Your task to perform on an android device: add a contact in the contacts app Image 0: 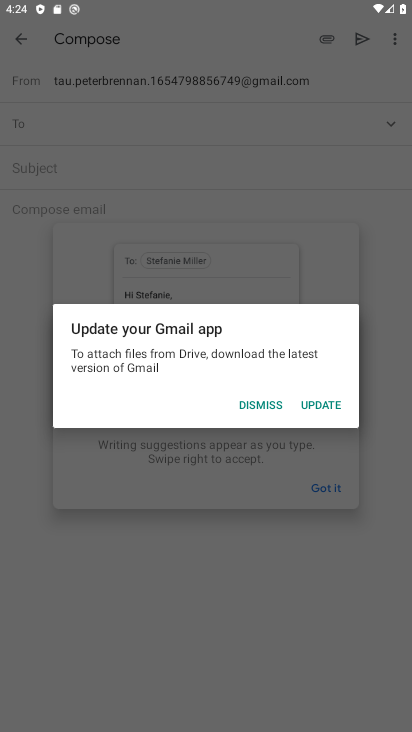
Step 0: click (316, 405)
Your task to perform on an android device: add a contact in the contacts app Image 1: 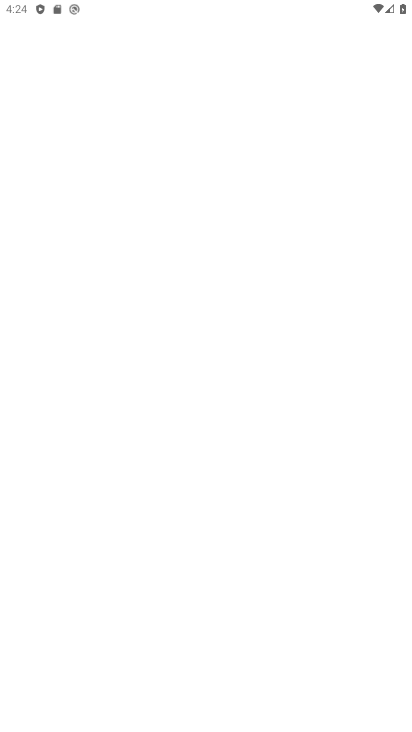
Step 1: press home button
Your task to perform on an android device: add a contact in the contacts app Image 2: 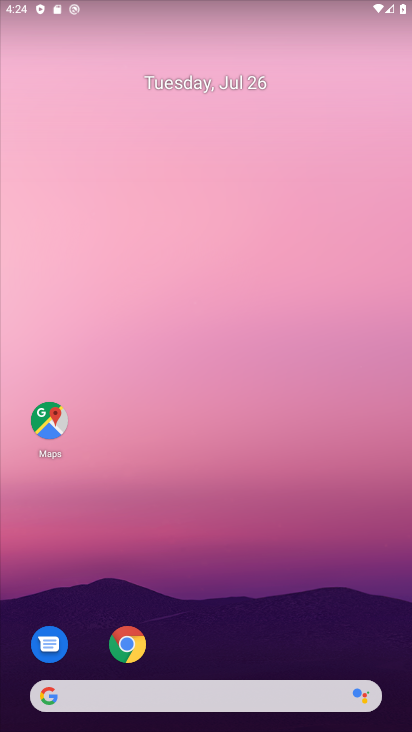
Step 2: drag from (292, 627) to (294, 78)
Your task to perform on an android device: add a contact in the contacts app Image 3: 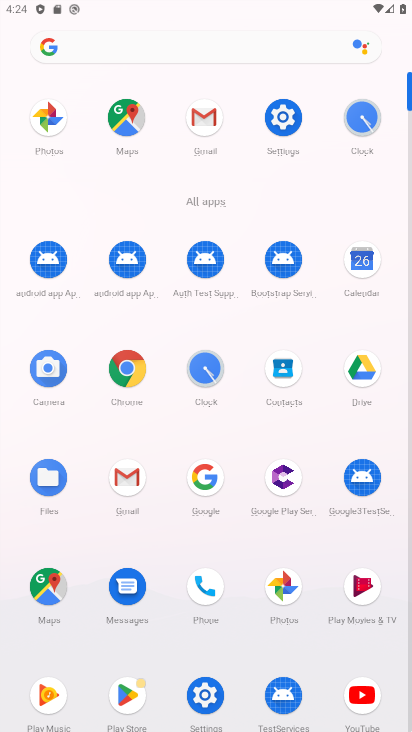
Step 3: click (298, 367)
Your task to perform on an android device: add a contact in the contacts app Image 4: 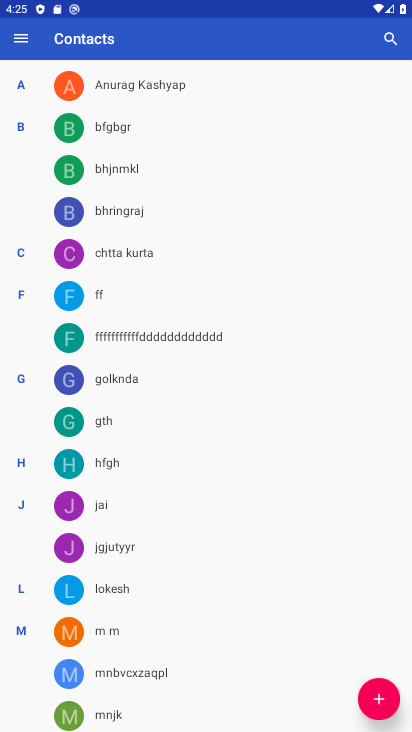
Step 4: drag from (180, 644) to (197, 261)
Your task to perform on an android device: add a contact in the contacts app Image 5: 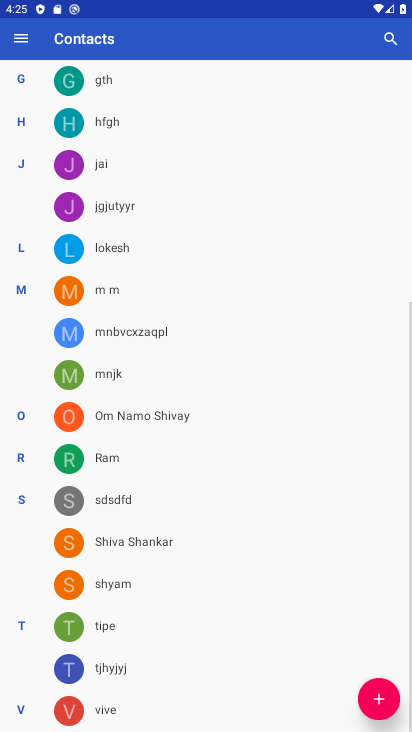
Step 5: click (383, 680)
Your task to perform on an android device: add a contact in the contacts app Image 6: 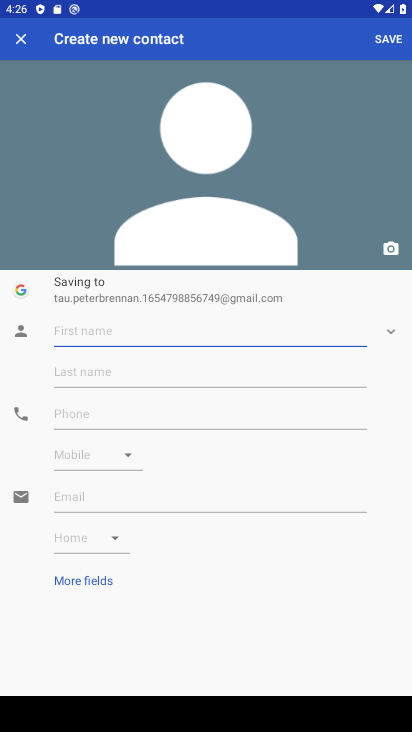
Step 6: type "bbbjj"
Your task to perform on an android device: add a contact in the contacts app Image 7: 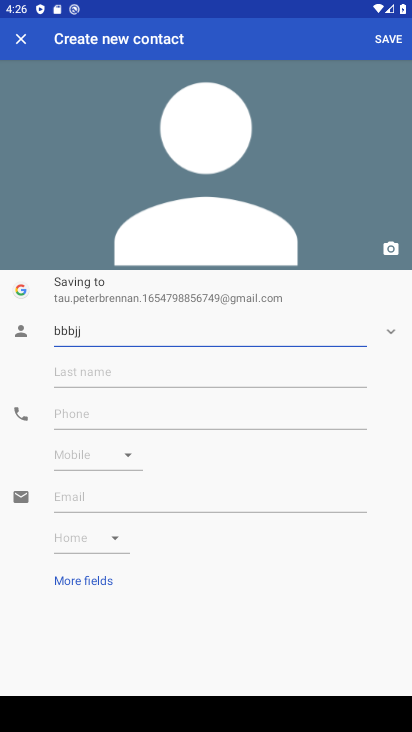
Step 7: click (75, 421)
Your task to perform on an android device: add a contact in the contacts app Image 8: 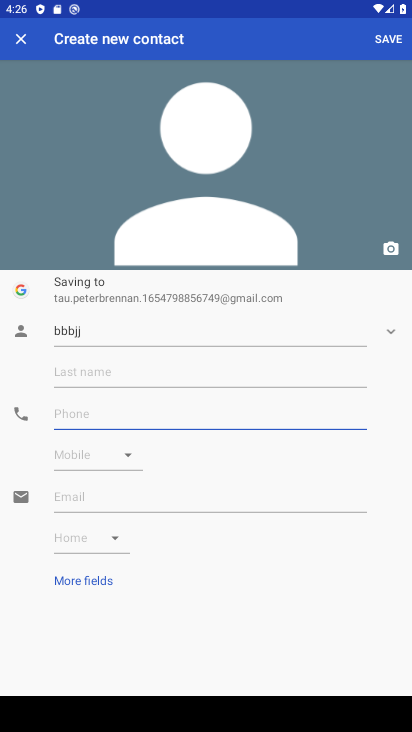
Step 8: type "7654"
Your task to perform on an android device: add a contact in the contacts app Image 9: 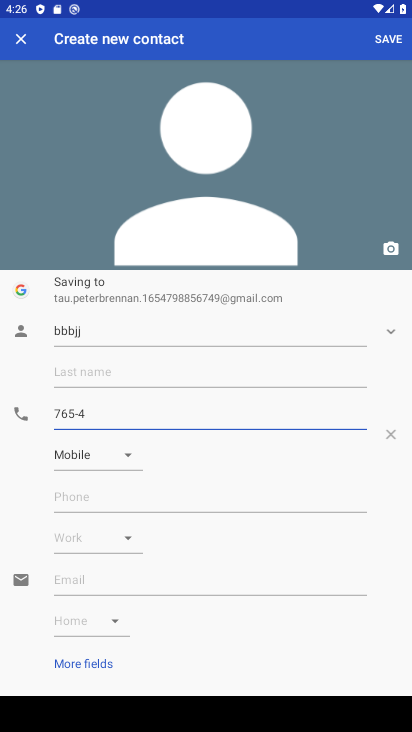
Step 9: click (389, 39)
Your task to perform on an android device: add a contact in the contacts app Image 10: 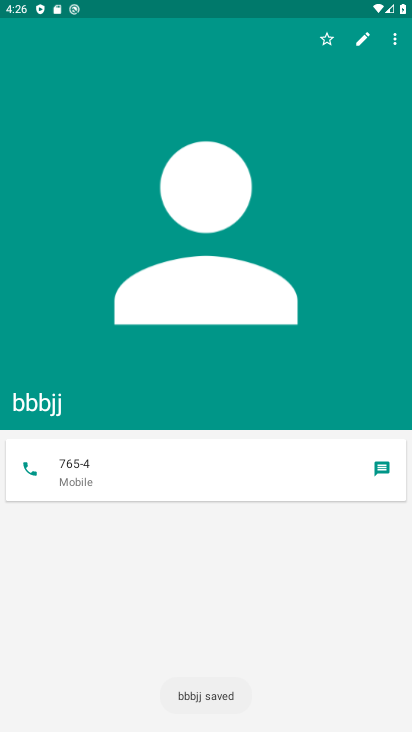
Step 10: task complete